Your task to perform on an android device: move an email to a new category in the gmail app Image 0: 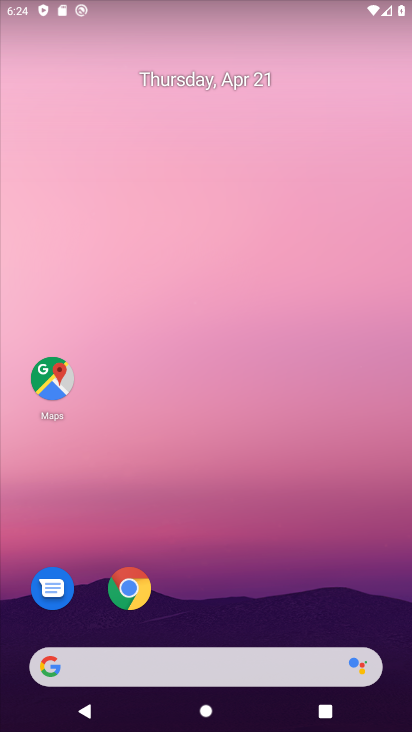
Step 0: drag from (294, 465) to (265, 240)
Your task to perform on an android device: move an email to a new category in the gmail app Image 1: 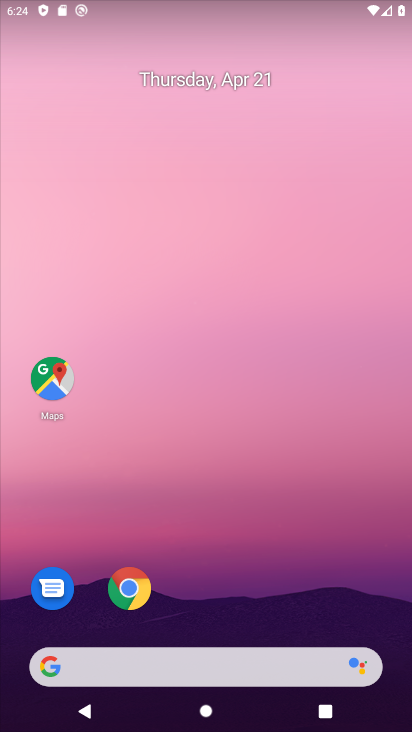
Step 1: drag from (253, 570) to (180, 222)
Your task to perform on an android device: move an email to a new category in the gmail app Image 2: 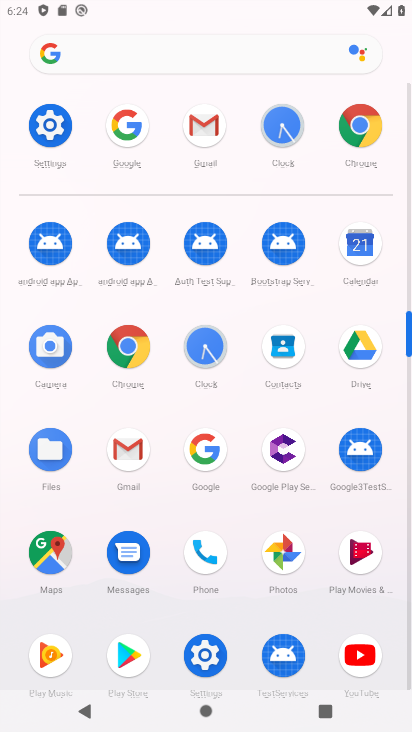
Step 2: click (121, 464)
Your task to perform on an android device: move an email to a new category in the gmail app Image 3: 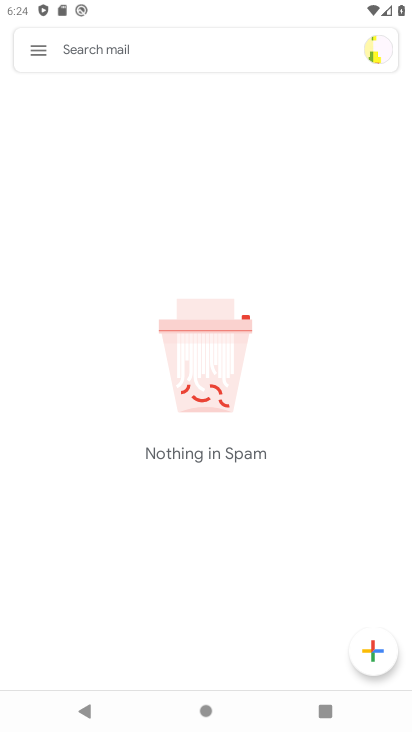
Step 3: task complete